Your task to perform on an android device: manage bookmarks in the chrome app Image 0: 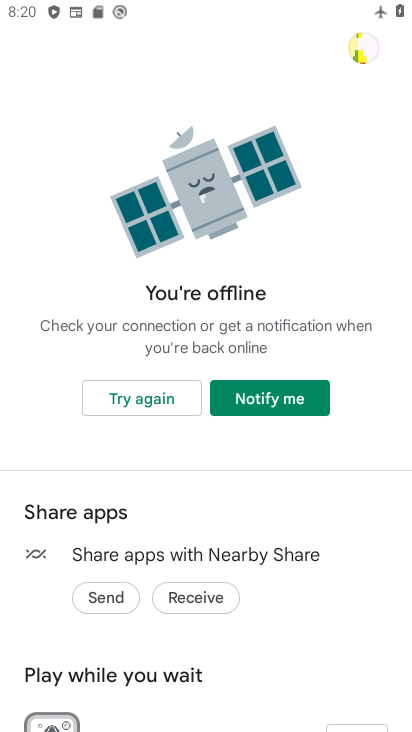
Step 0: press home button
Your task to perform on an android device: manage bookmarks in the chrome app Image 1: 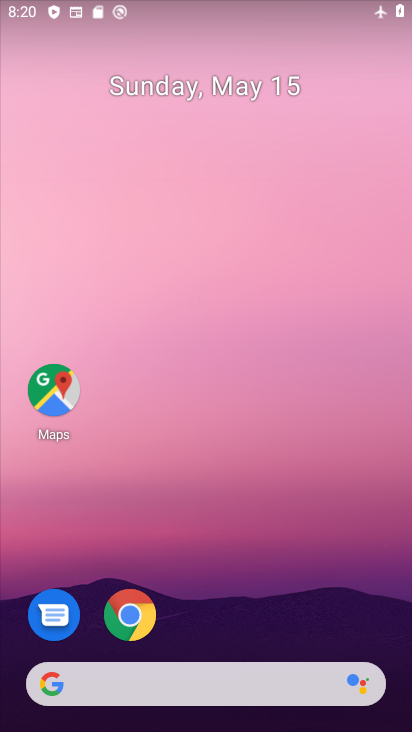
Step 1: click (136, 617)
Your task to perform on an android device: manage bookmarks in the chrome app Image 2: 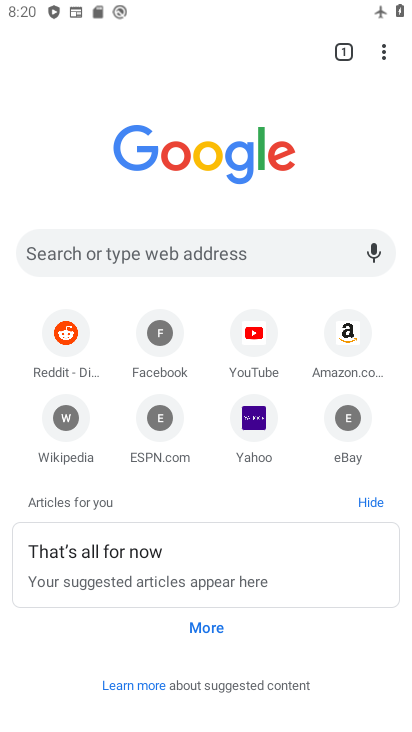
Step 2: click (392, 42)
Your task to perform on an android device: manage bookmarks in the chrome app Image 3: 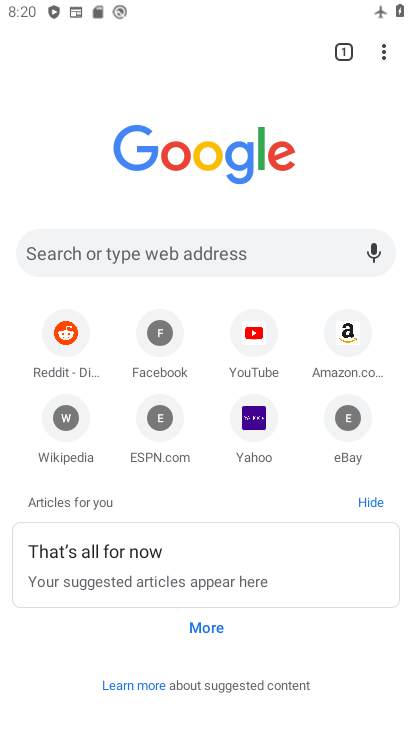
Step 3: click (384, 48)
Your task to perform on an android device: manage bookmarks in the chrome app Image 4: 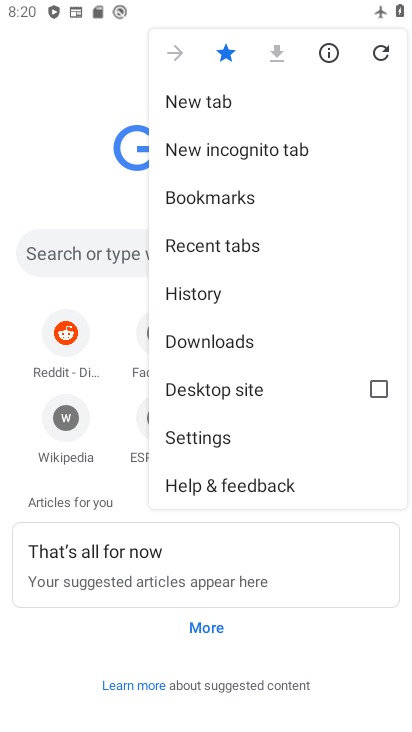
Step 4: click (183, 196)
Your task to perform on an android device: manage bookmarks in the chrome app Image 5: 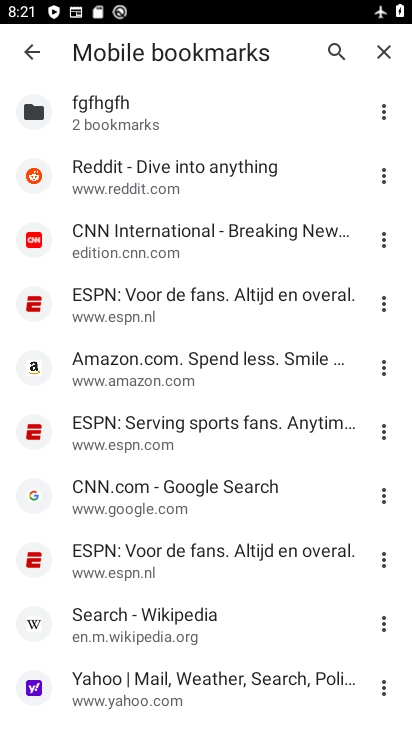
Step 5: click (69, 435)
Your task to perform on an android device: manage bookmarks in the chrome app Image 6: 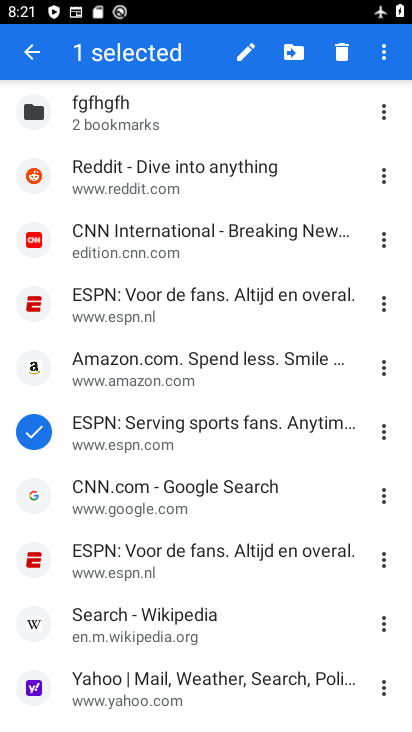
Step 6: click (339, 52)
Your task to perform on an android device: manage bookmarks in the chrome app Image 7: 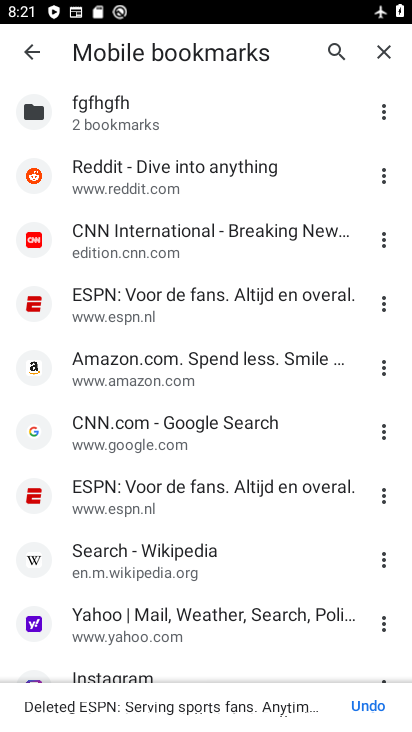
Step 7: click (110, 486)
Your task to perform on an android device: manage bookmarks in the chrome app Image 8: 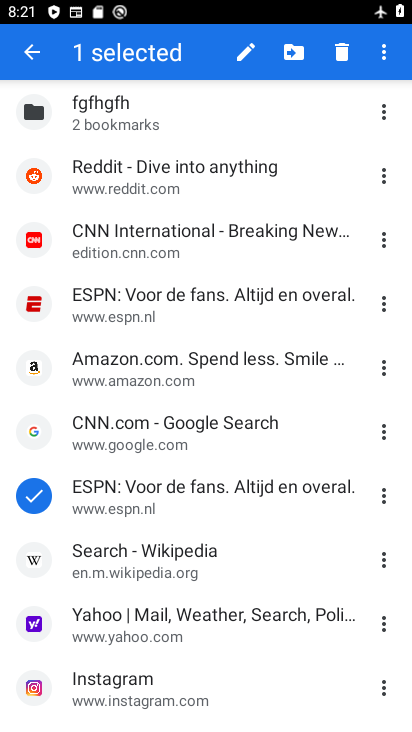
Step 8: click (336, 45)
Your task to perform on an android device: manage bookmarks in the chrome app Image 9: 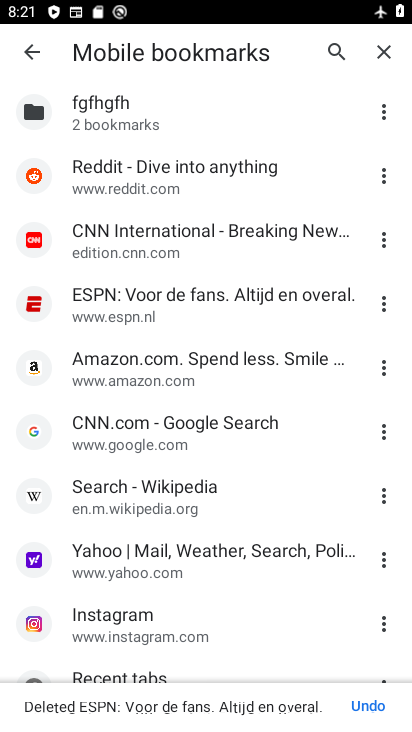
Step 9: task complete